Your task to perform on an android device: Open the map Image 0: 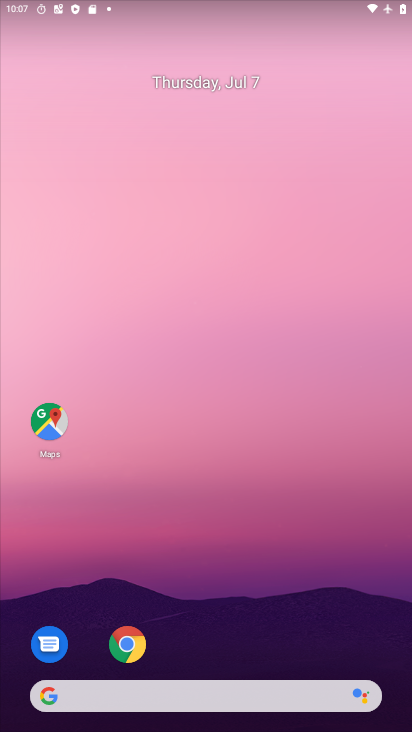
Step 0: drag from (336, 622) to (241, 130)
Your task to perform on an android device: Open the map Image 1: 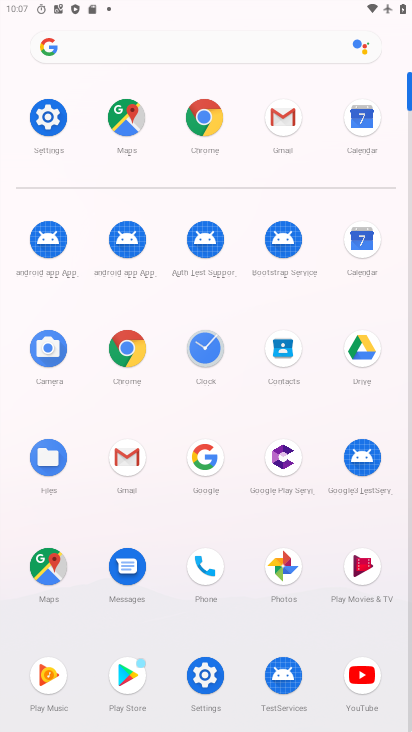
Step 1: click (126, 120)
Your task to perform on an android device: Open the map Image 2: 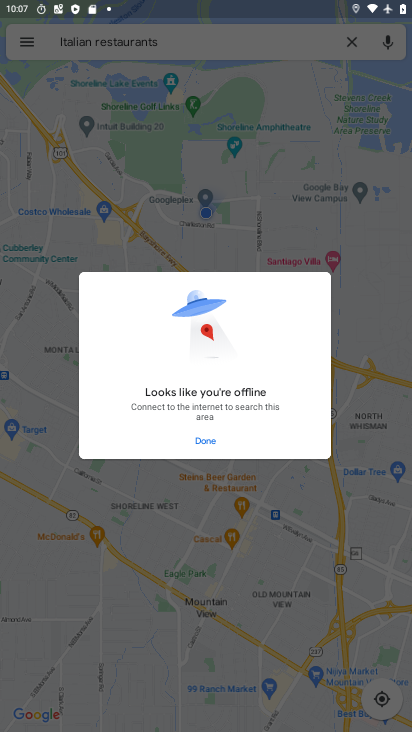
Step 2: task complete